Your task to perform on an android device: Do I have any events tomorrow? Image 0: 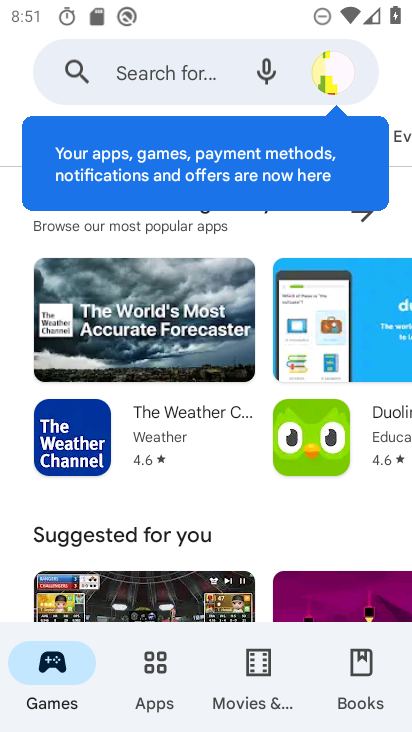
Step 0: press home button
Your task to perform on an android device: Do I have any events tomorrow? Image 1: 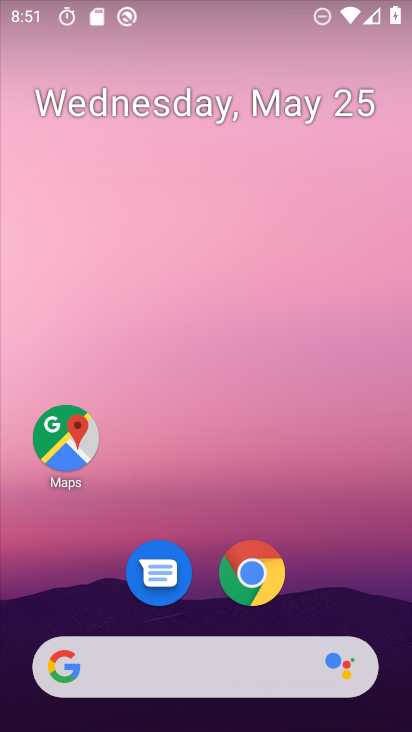
Step 1: drag from (388, 686) to (310, 284)
Your task to perform on an android device: Do I have any events tomorrow? Image 2: 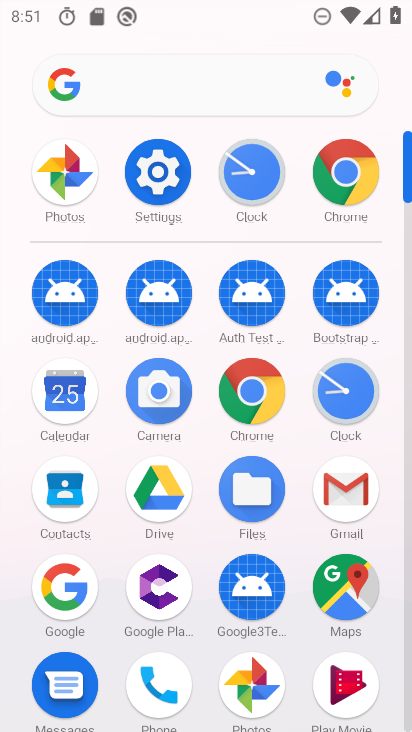
Step 2: click (59, 386)
Your task to perform on an android device: Do I have any events tomorrow? Image 3: 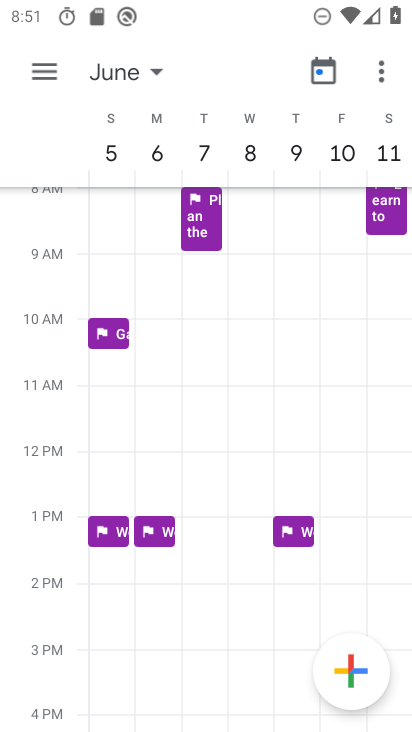
Step 3: click (143, 70)
Your task to perform on an android device: Do I have any events tomorrow? Image 4: 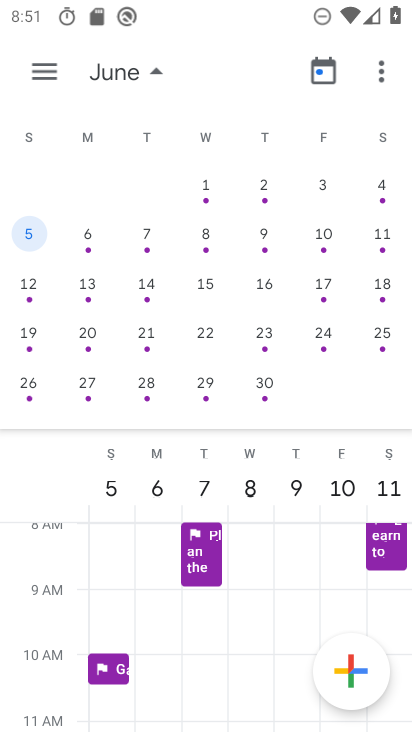
Step 4: drag from (69, 177) to (381, 175)
Your task to perform on an android device: Do I have any events tomorrow? Image 5: 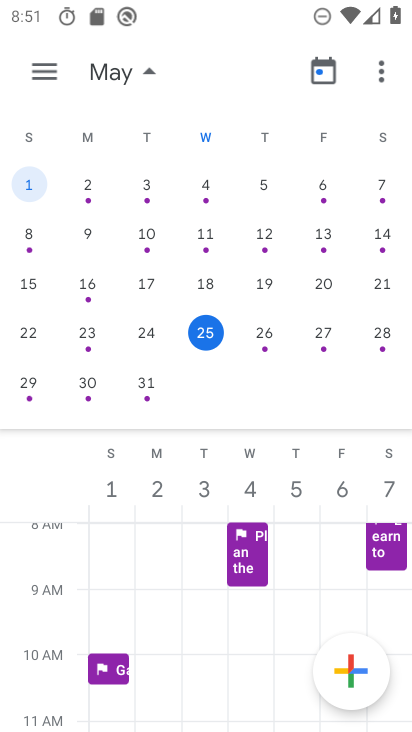
Step 5: click (263, 332)
Your task to perform on an android device: Do I have any events tomorrow? Image 6: 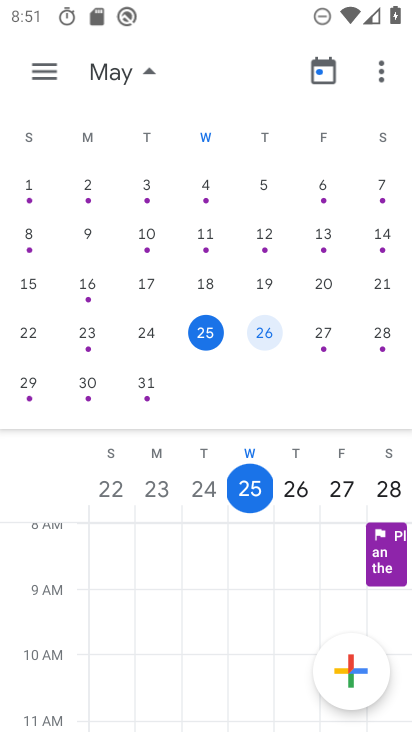
Step 6: click (44, 74)
Your task to perform on an android device: Do I have any events tomorrow? Image 7: 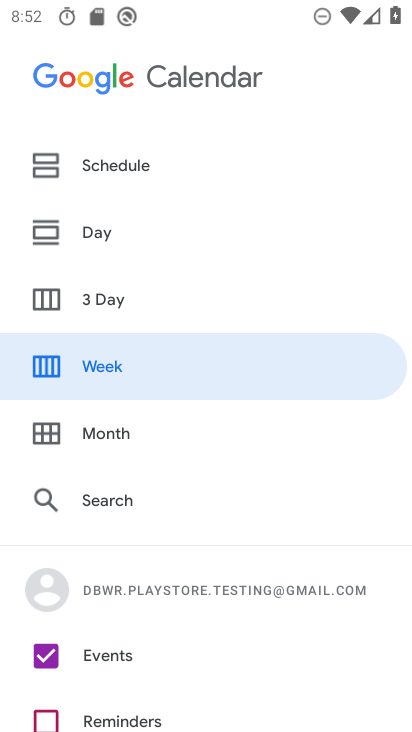
Step 7: click (93, 234)
Your task to perform on an android device: Do I have any events tomorrow? Image 8: 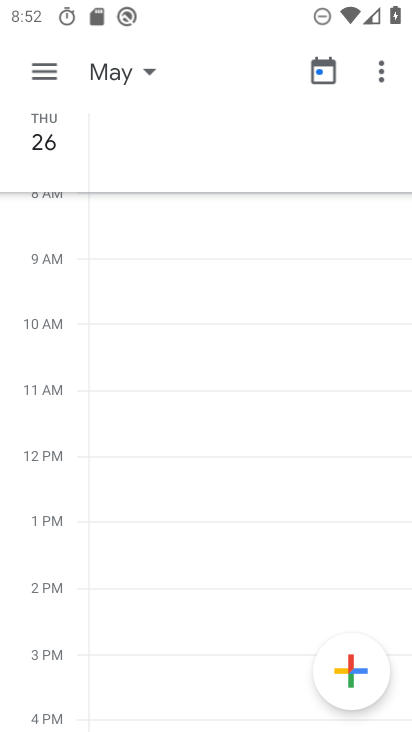
Step 8: click (48, 77)
Your task to perform on an android device: Do I have any events tomorrow? Image 9: 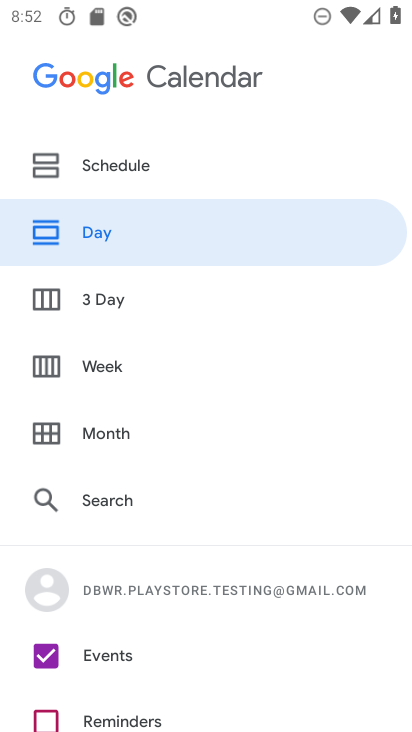
Step 9: click (93, 163)
Your task to perform on an android device: Do I have any events tomorrow? Image 10: 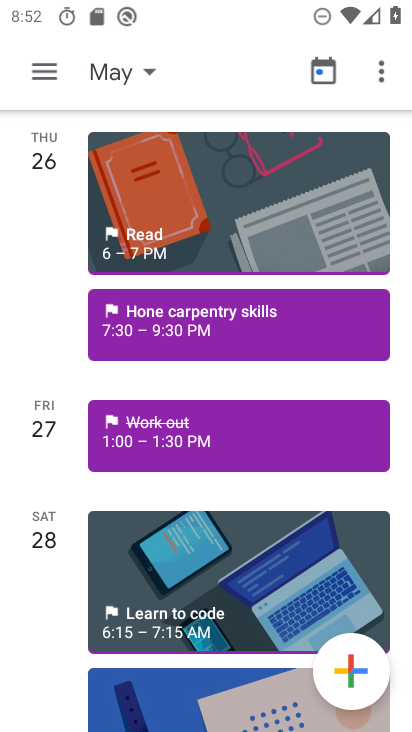
Step 10: task complete